Your task to perform on an android device: change keyboard looks Image 0: 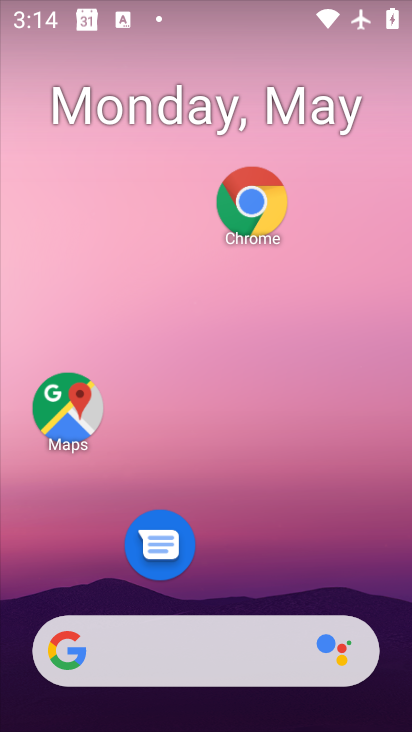
Step 0: drag from (225, 569) to (230, 131)
Your task to perform on an android device: change keyboard looks Image 1: 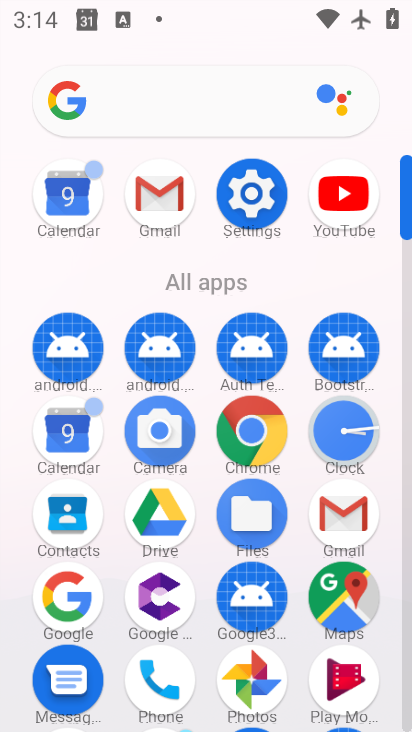
Step 1: click (252, 179)
Your task to perform on an android device: change keyboard looks Image 2: 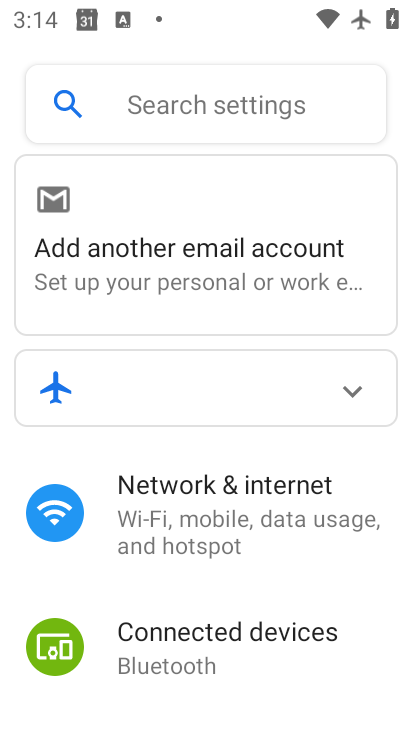
Step 2: drag from (221, 591) to (233, 322)
Your task to perform on an android device: change keyboard looks Image 3: 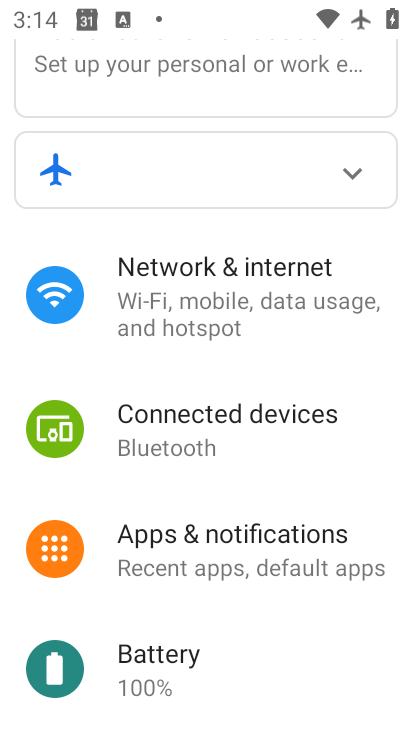
Step 3: drag from (245, 550) to (257, 294)
Your task to perform on an android device: change keyboard looks Image 4: 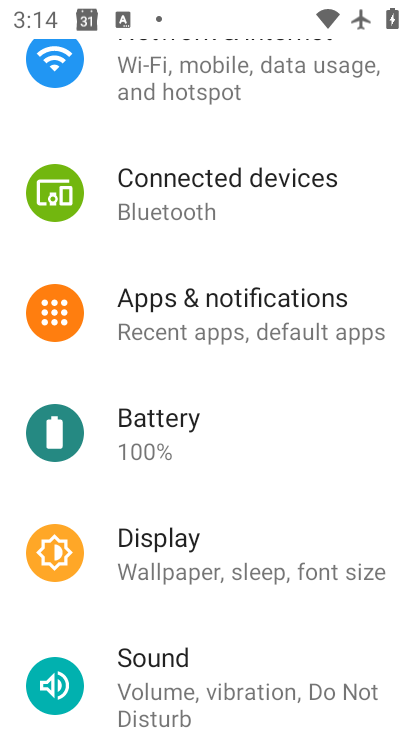
Step 4: drag from (245, 549) to (252, 291)
Your task to perform on an android device: change keyboard looks Image 5: 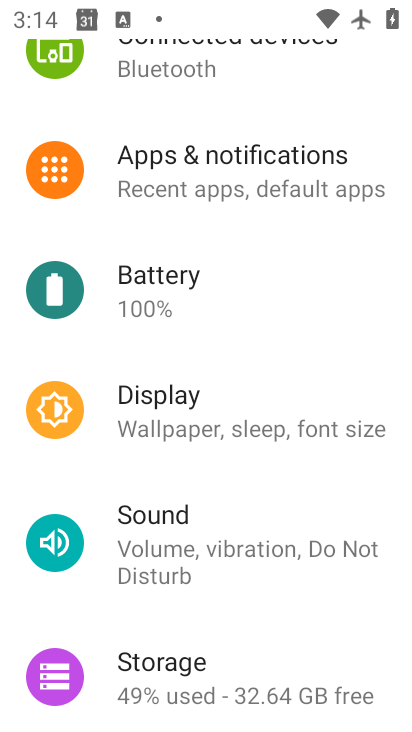
Step 5: drag from (252, 500) to (257, 335)
Your task to perform on an android device: change keyboard looks Image 6: 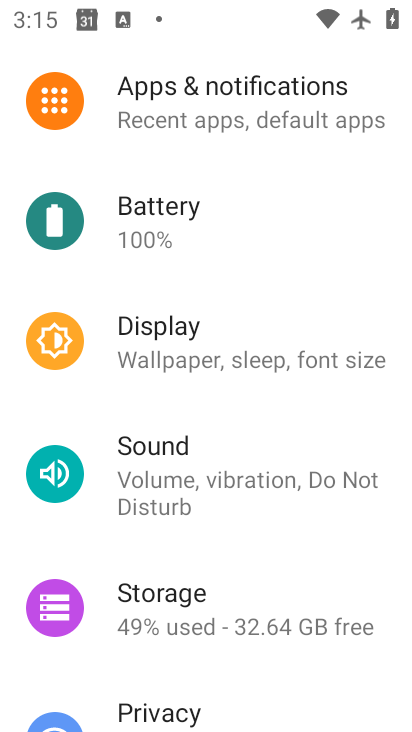
Step 6: drag from (233, 664) to (261, 223)
Your task to perform on an android device: change keyboard looks Image 7: 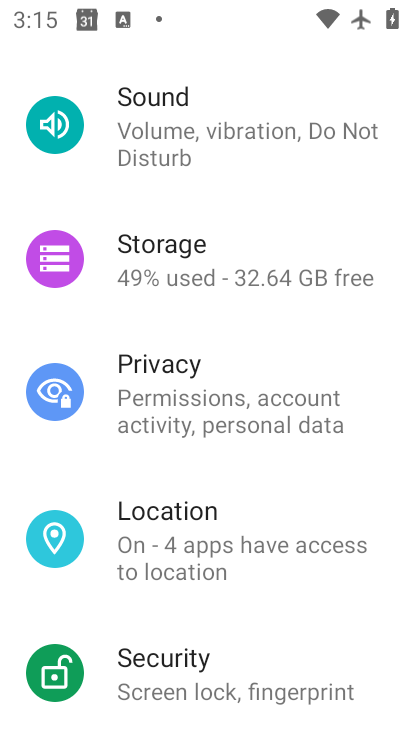
Step 7: drag from (259, 642) to (278, 399)
Your task to perform on an android device: change keyboard looks Image 8: 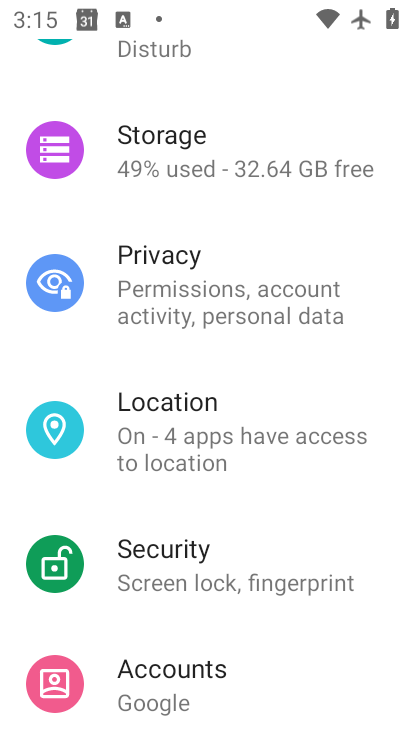
Step 8: drag from (244, 616) to (256, 348)
Your task to perform on an android device: change keyboard looks Image 9: 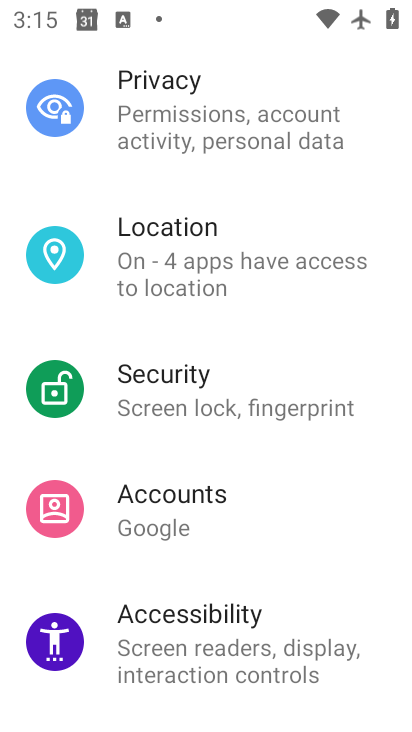
Step 9: drag from (249, 627) to (257, 388)
Your task to perform on an android device: change keyboard looks Image 10: 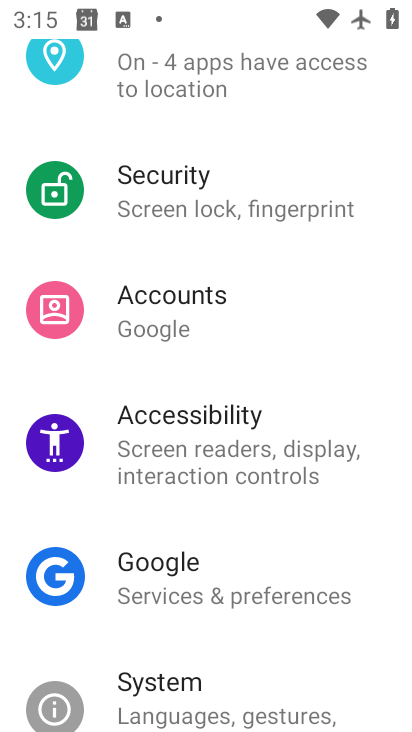
Step 10: drag from (259, 667) to (277, 364)
Your task to perform on an android device: change keyboard looks Image 11: 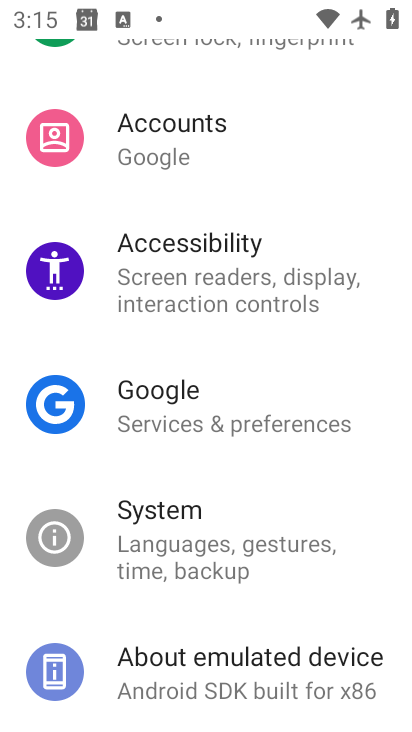
Step 11: click (277, 560)
Your task to perform on an android device: change keyboard looks Image 12: 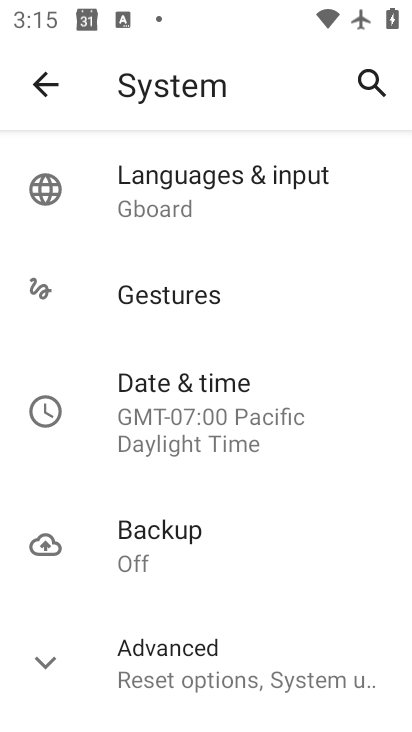
Step 12: click (144, 219)
Your task to perform on an android device: change keyboard looks Image 13: 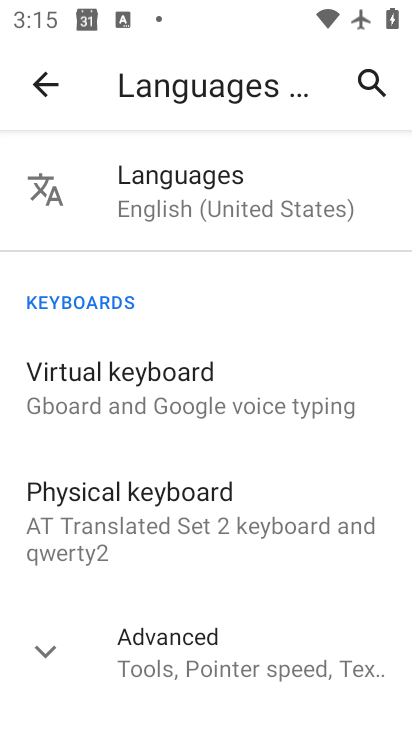
Step 13: click (111, 406)
Your task to perform on an android device: change keyboard looks Image 14: 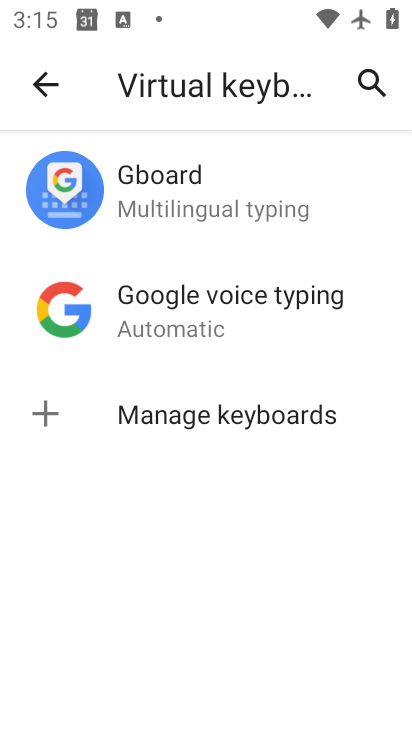
Step 14: click (252, 191)
Your task to perform on an android device: change keyboard looks Image 15: 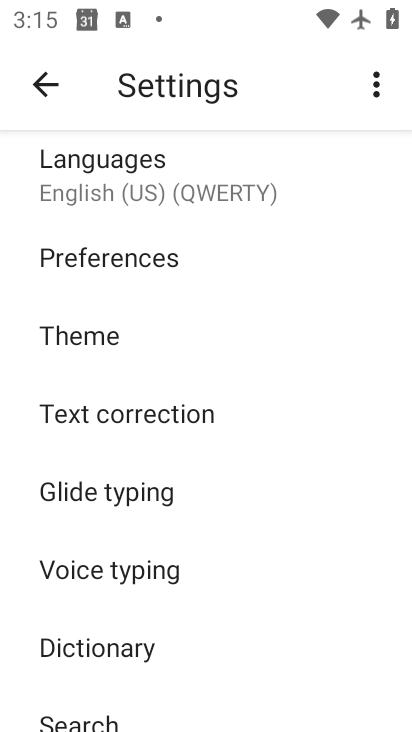
Step 15: click (49, 333)
Your task to perform on an android device: change keyboard looks Image 16: 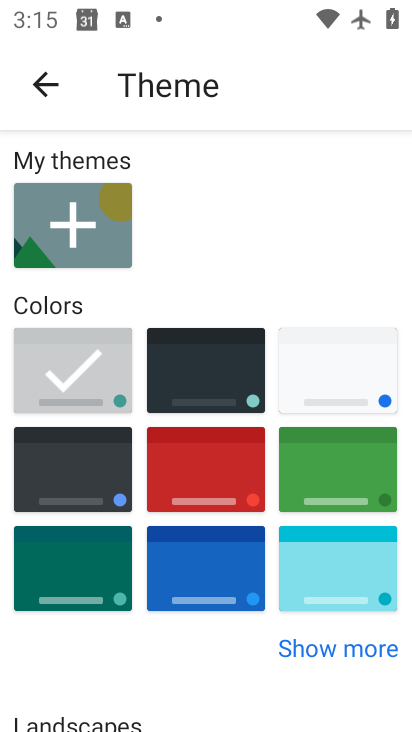
Step 16: click (301, 364)
Your task to perform on an android device: change keyboard looks Image 17: 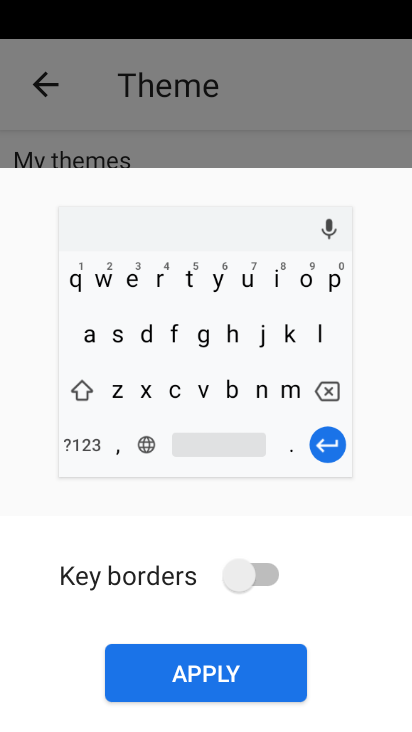
Step 17: click (259, 677)
Your task to perform on an android device: change keyboard looks Image 18: 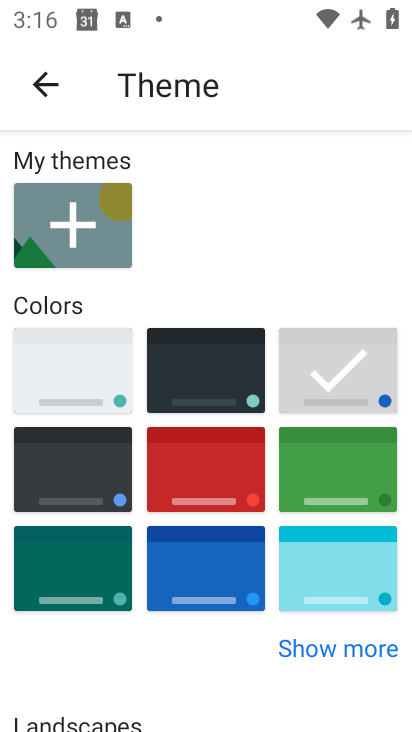
Step 18: task complete